Your task to perform on an android device: Go to Wikipedia Image 0: 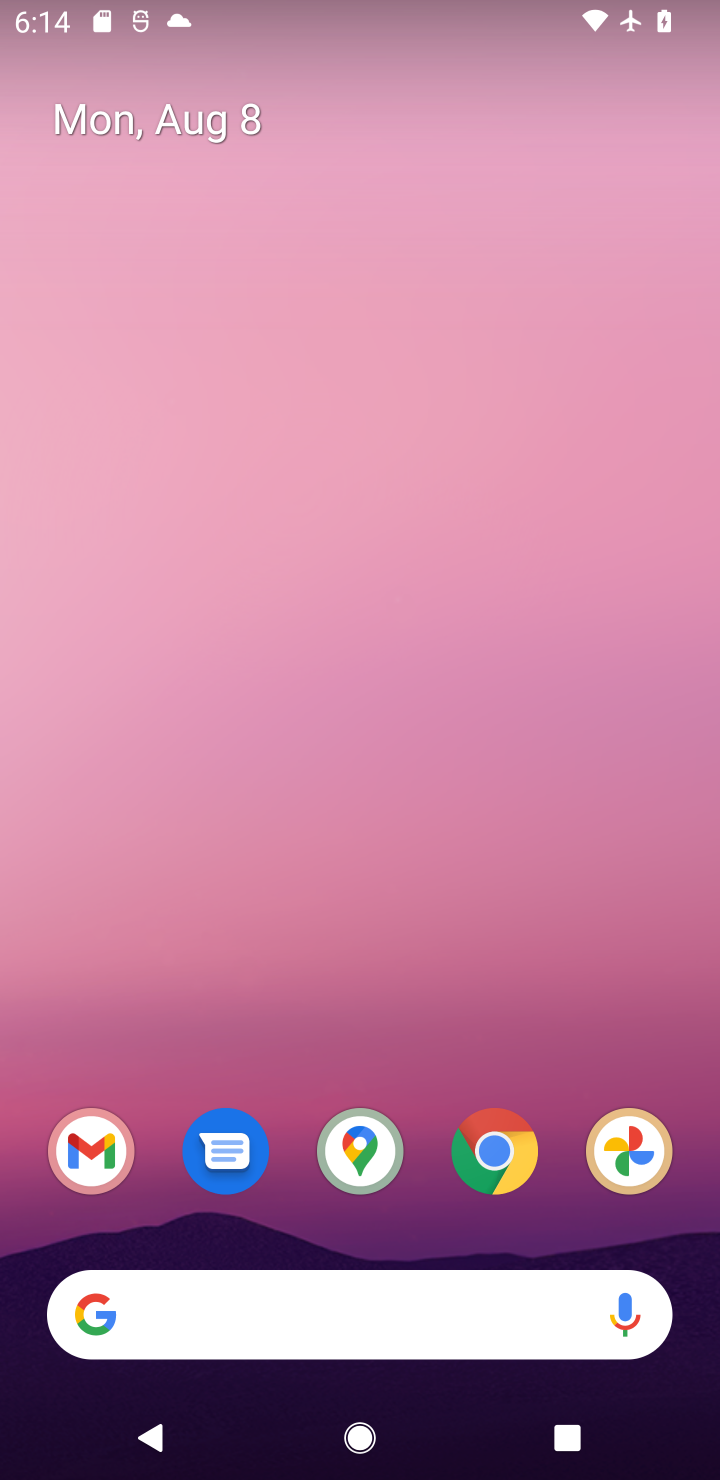
Step 0: click (529, 1163)
Your task to perform on an android device: Go to Wikipedia Image 1: 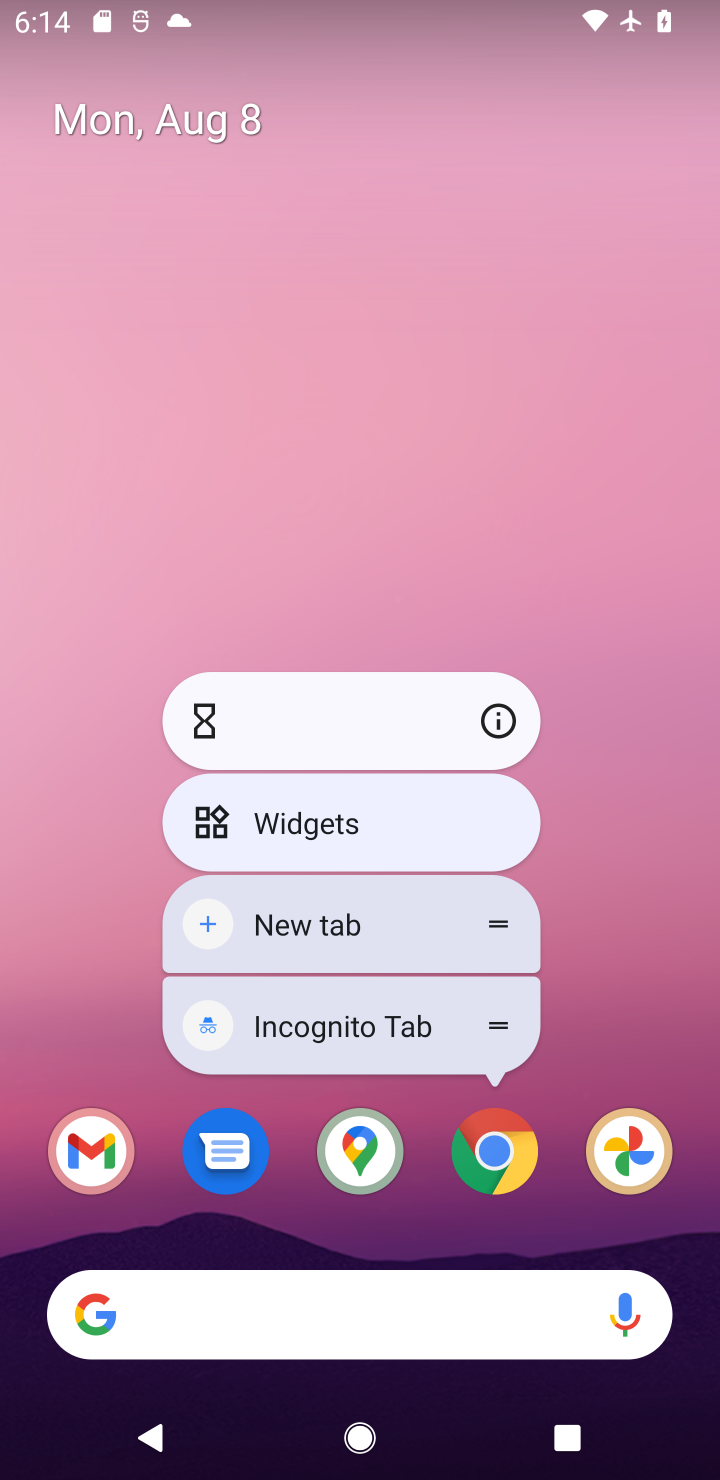
Step 1: click (514, 1153)
Your task to perform on an android device: Go to Wikipedia Image 2: 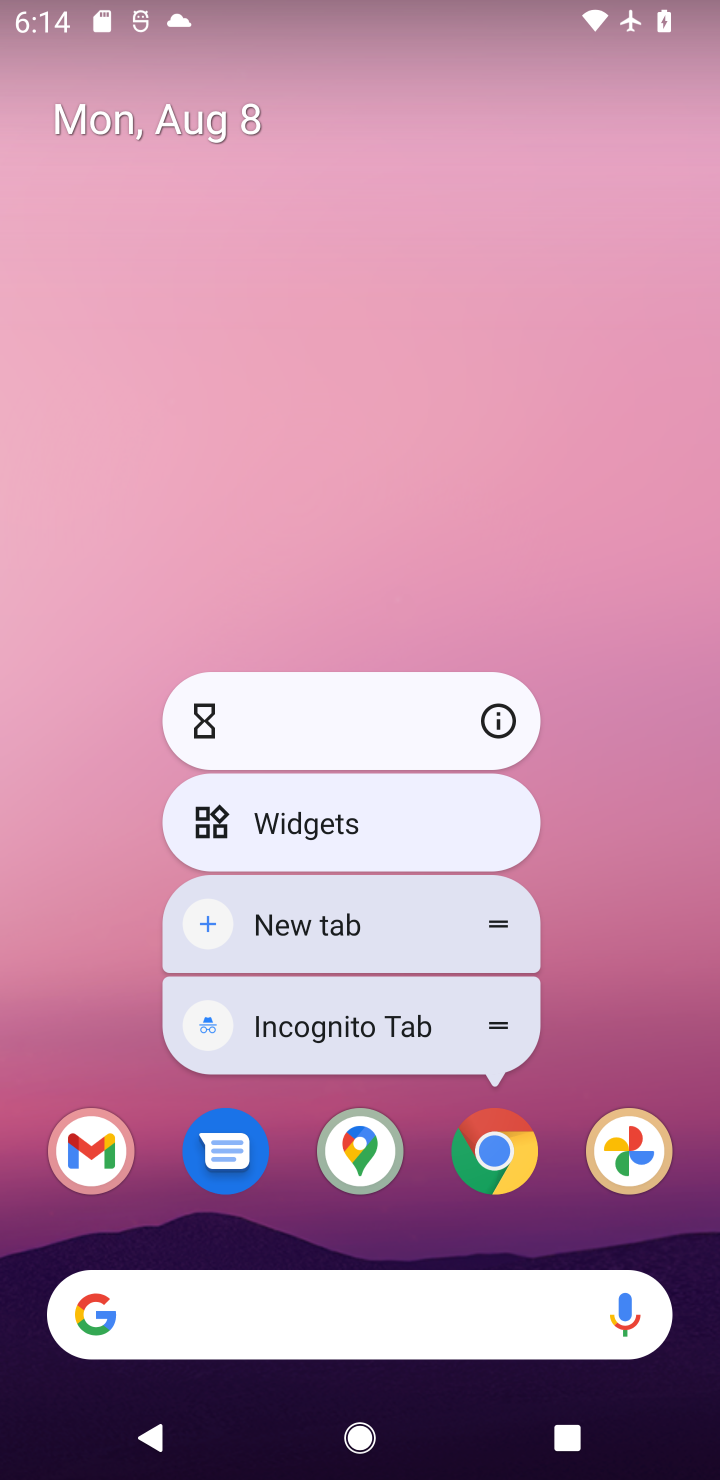
Step 2: click (514, 1153)
Your task to perform on an android device: Go to Wikipedia Image 3: 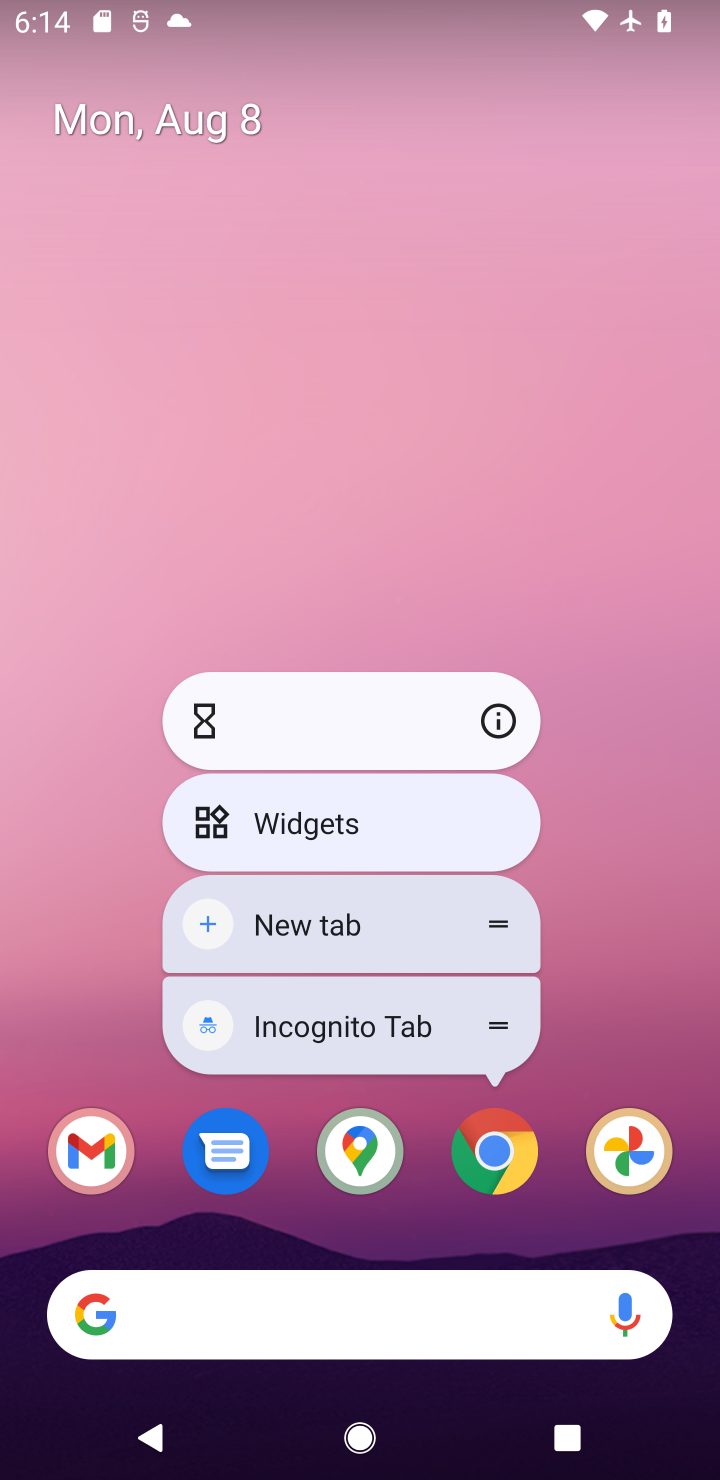
Step 3: click (514, 1153)
Your task to perform on an android device: Go to Wikipedia Image 4: 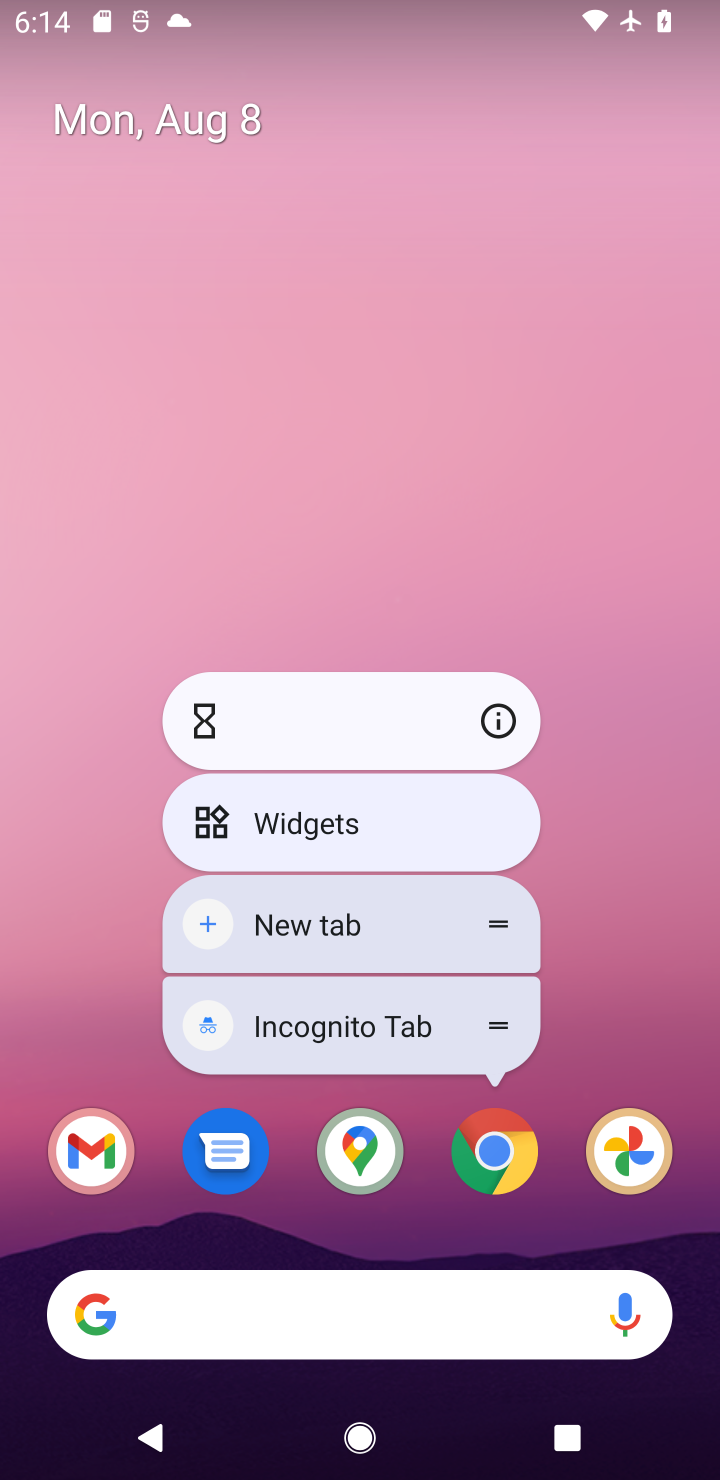
Step 4: click (514, 1153)
Your task to perform on an android device: Go to Wikipedia Image 5: 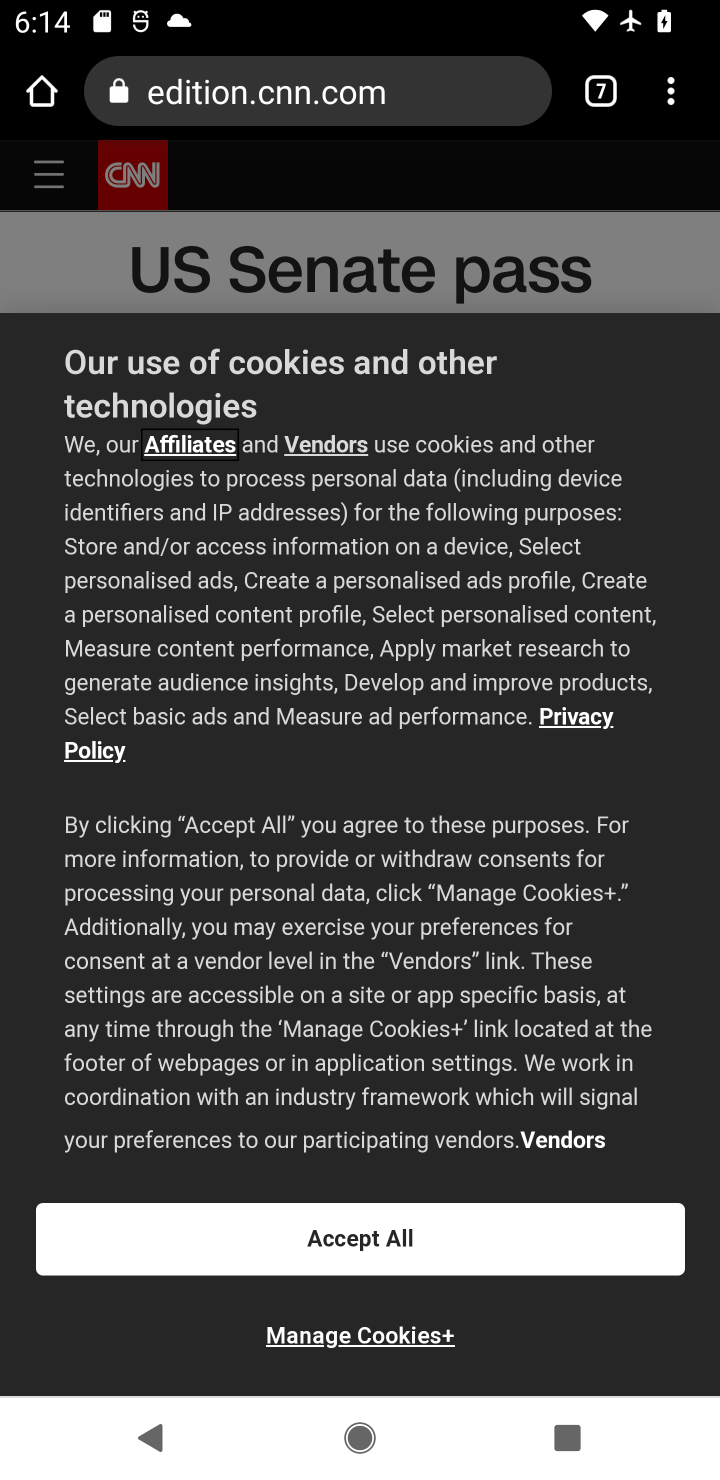
Step 5: click (600, 90)
Your task to perform on an android device: Go to Wikipedia Image 6: 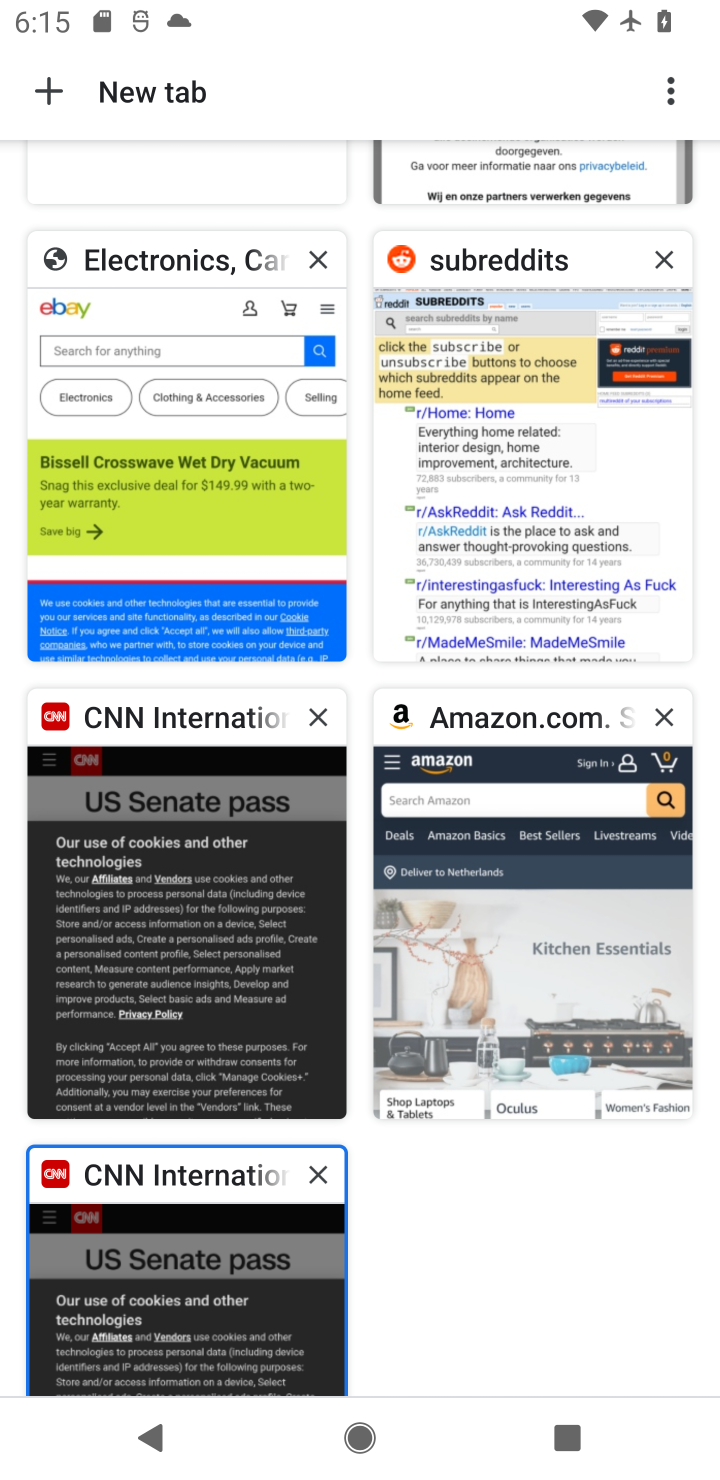
Step 6: click (53, 87)
Your task to perform on an android device: Go to Wikipedia Image 7: 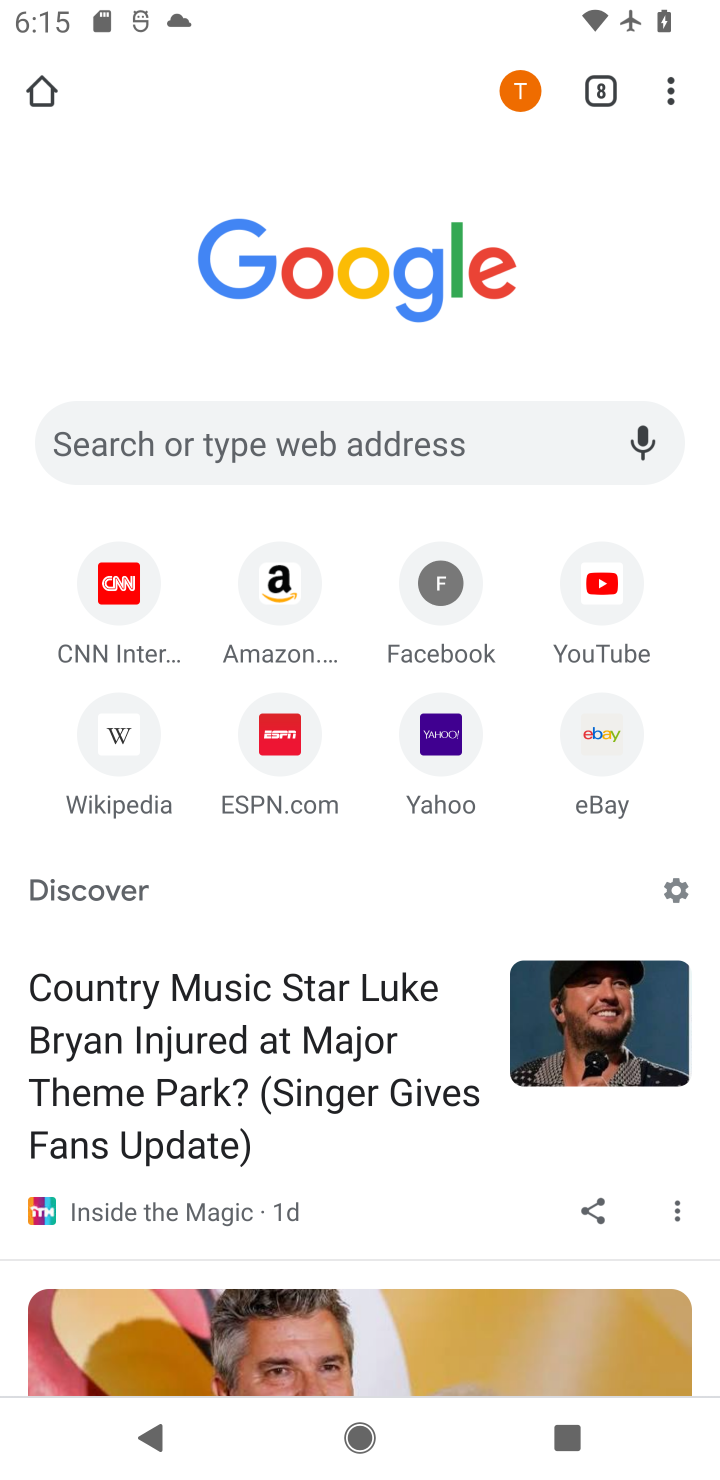
Step 7: click (103, 740)
Your task to perform on an android device: Go to Wikipedia Image 8: 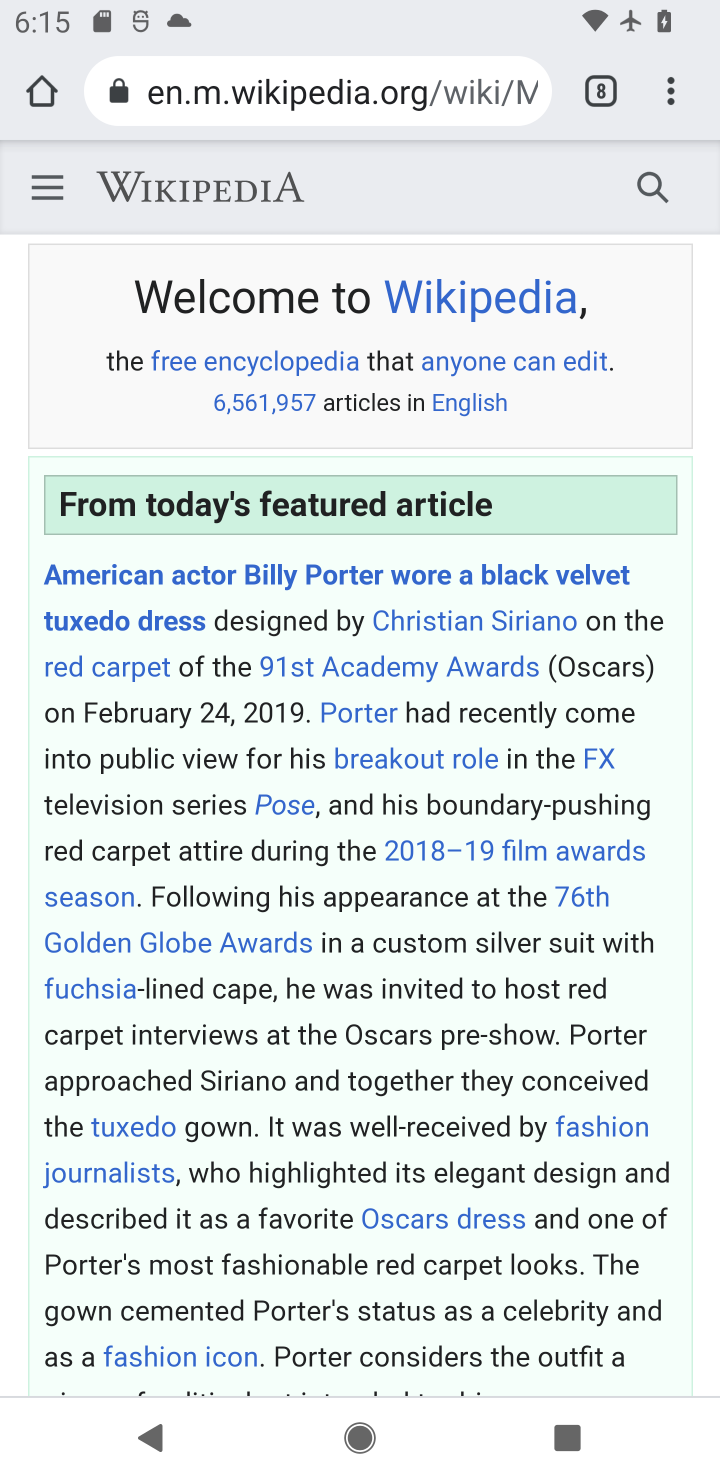
Step 8: task complete